Your task to perform on an android device: open the mobile data screen to see how much data has been used Image 0: 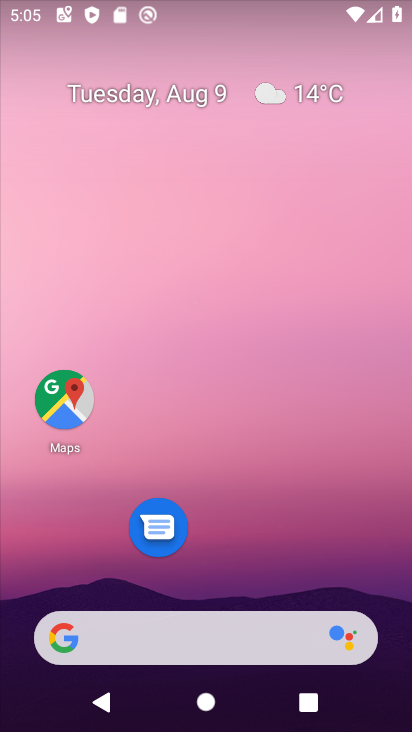
Step 0: drag from (208, 7) to (230, 469)
Your task to perform on an android device: open the mobile data screen to see how much data has been used Image 1: 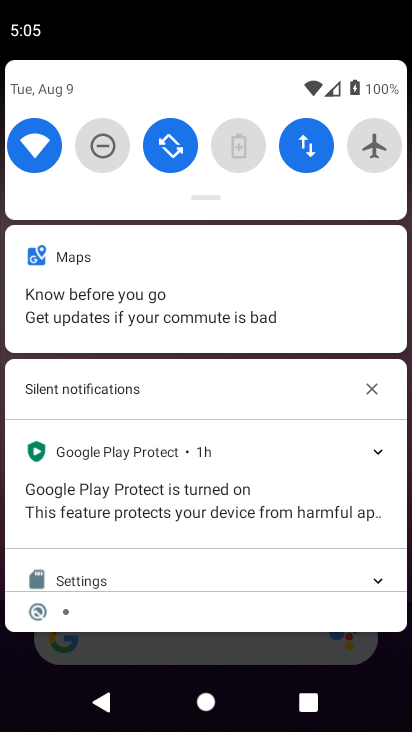
Step 1: click (295, 149)
Your task to perform on an android device: open the mobile data screen to see how much data has been used Image 2: 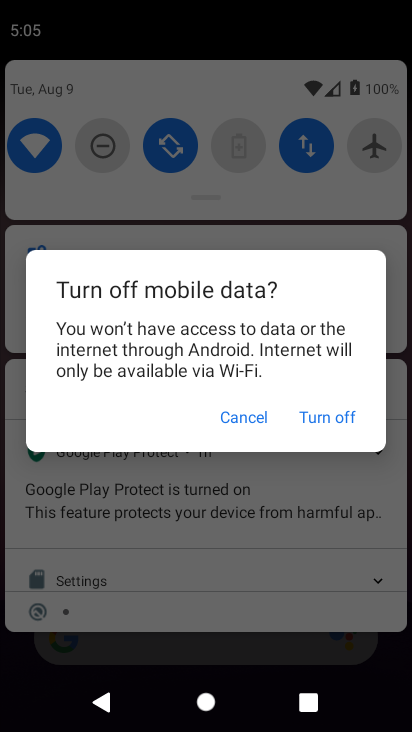
Step 2: click (292, 155)
Your task to perform on an android device: open the mobile data screen to see how much data has been used Image 3: 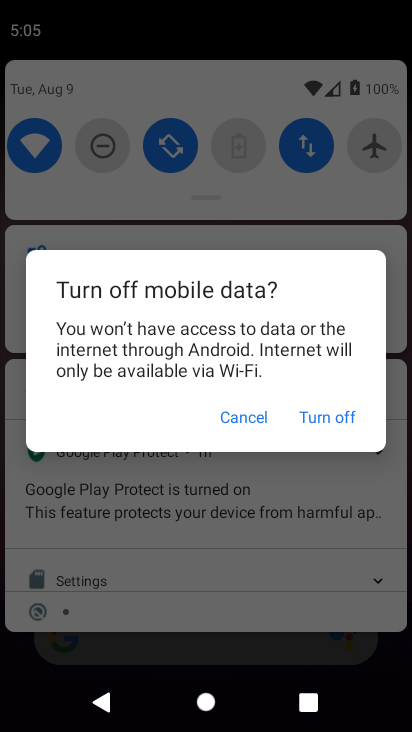
Step 3: click (292, 155)
Your task to perform on an android device: open the mobile data screen to see how much data has been used Image 4: 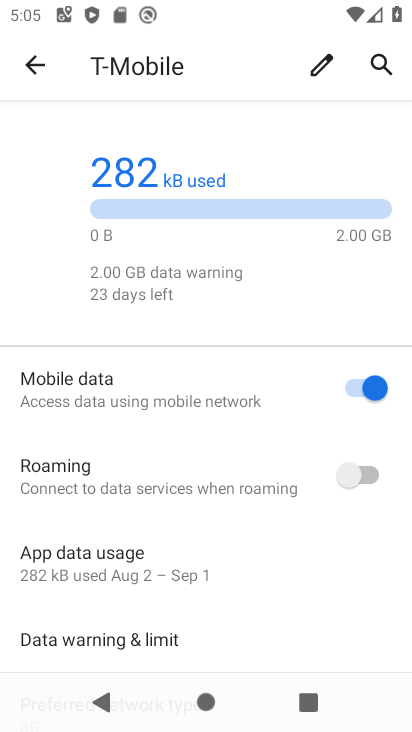
Step 4: task complete